Your task to perform on an android device: see creations saved in the google photos Image 0: 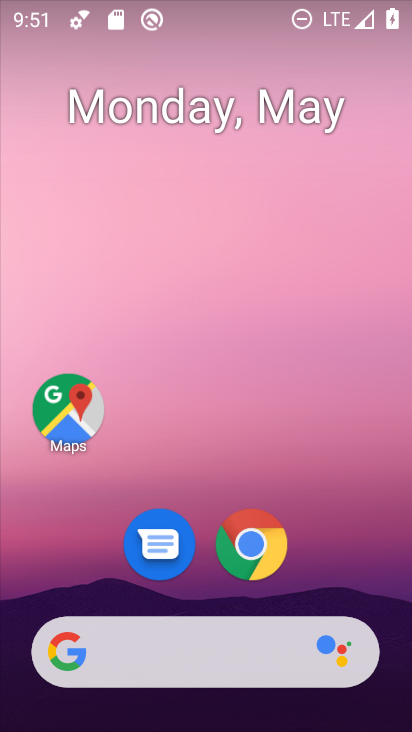
Step 0: press home button
Your task to perform on an android device: see creations saved in the google photos Image 1: 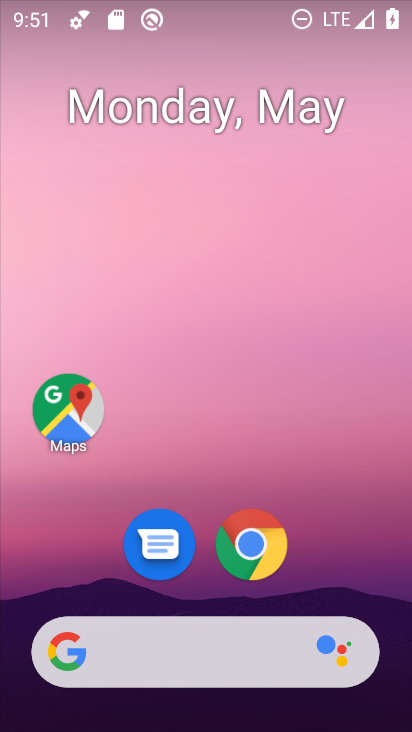
Step 1: drag from (337, 564) to (331, 148)
Your task to perform on an android device: see creations saved in the google photos Image 2: 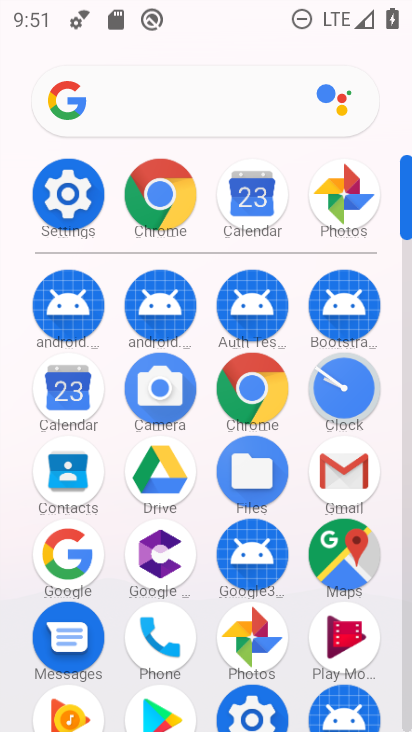
Step 2: click (242, 633)
Your task to perform on an android device: see creations saved in the google photos Image 3: 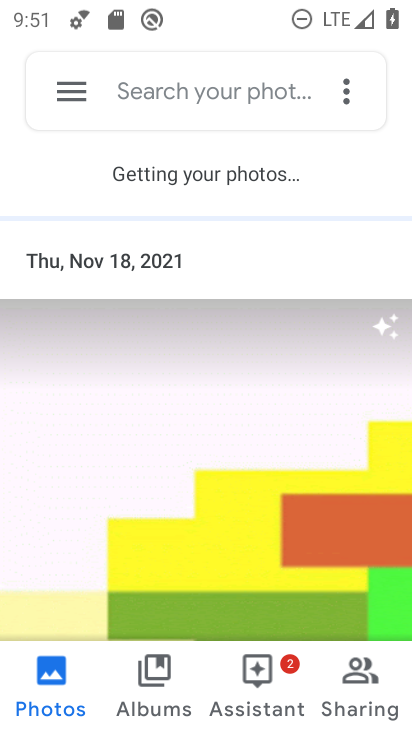
Step 3: click (165, 91)
Your task to perform on an android device: see creations saved in the google photos Image 4: 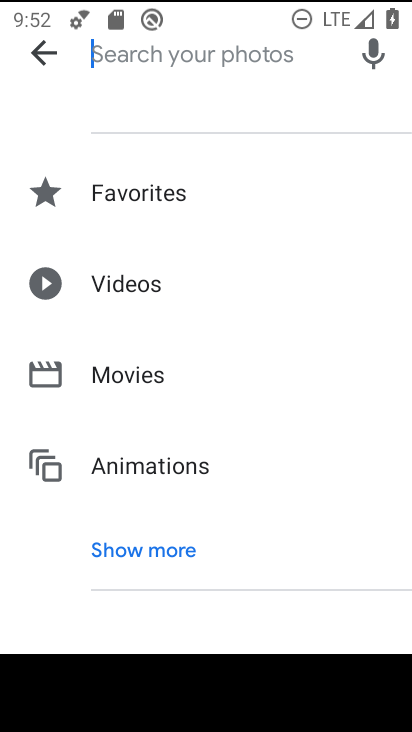
Step 4: type "creations"
Your task to perform on an android device: see creations saved in the google photos Image 5: 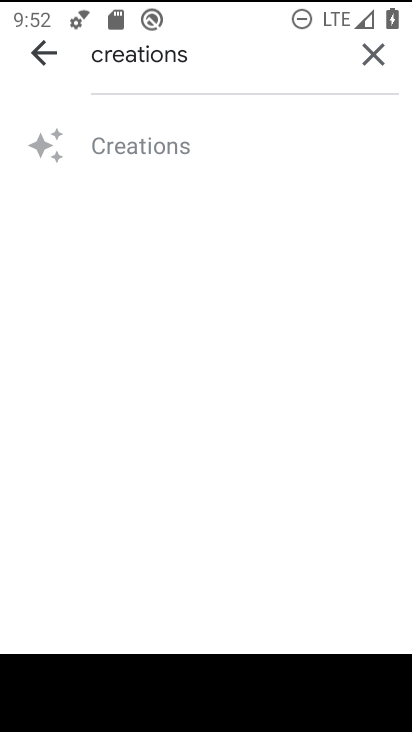
Step 5: click (159, 158)
Your task to perform on an android device: see creations saved in the google photos Image 6: 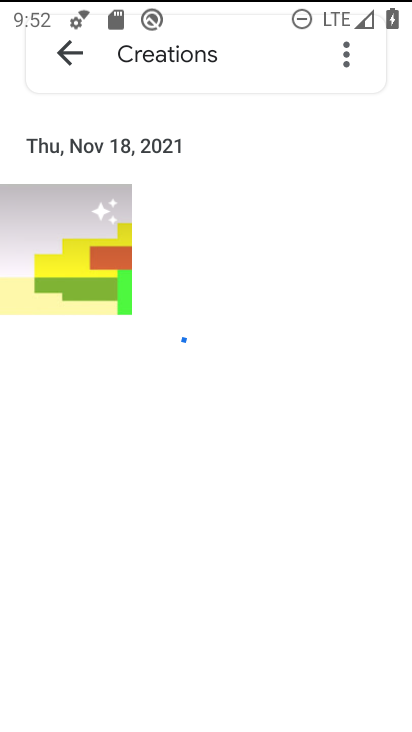
Step 6: task complete